Your task to perform on an android device: Search for flights from NYC to Tokyo Image 0: 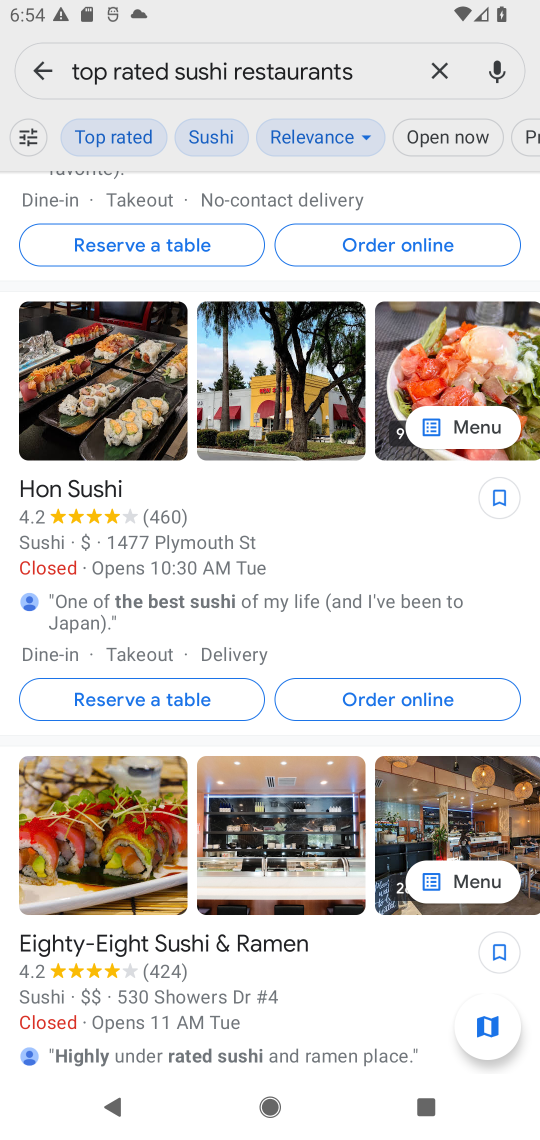
Step 0: press home button
Your task to perform on an android device: Search for flights from NYC to Tokyo Image 1: 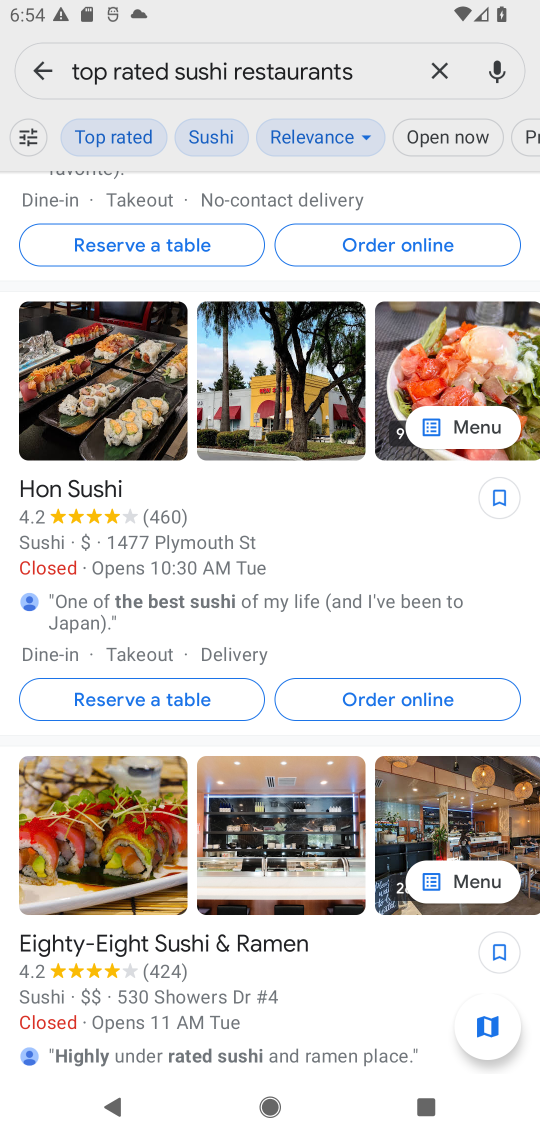
Step 1: press home button
Your task to perform on an android device: Search for flights from NYC to Tokyo Image 2: 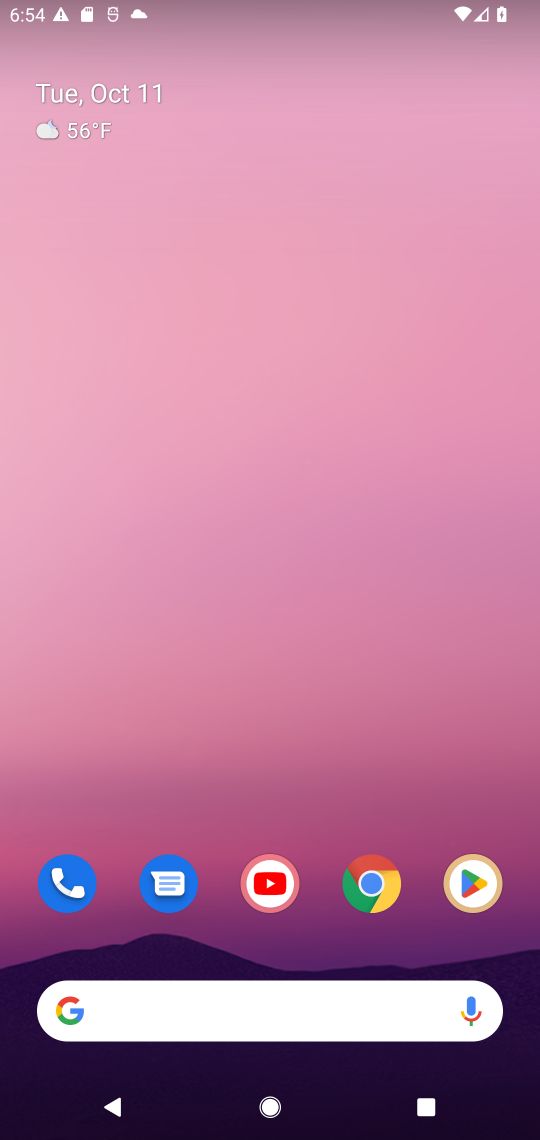
Step 2: drag from (318, 734) to (292, 103)
Your task to perform on an android device: Search for flights from NYC to Tokyo Image 3: 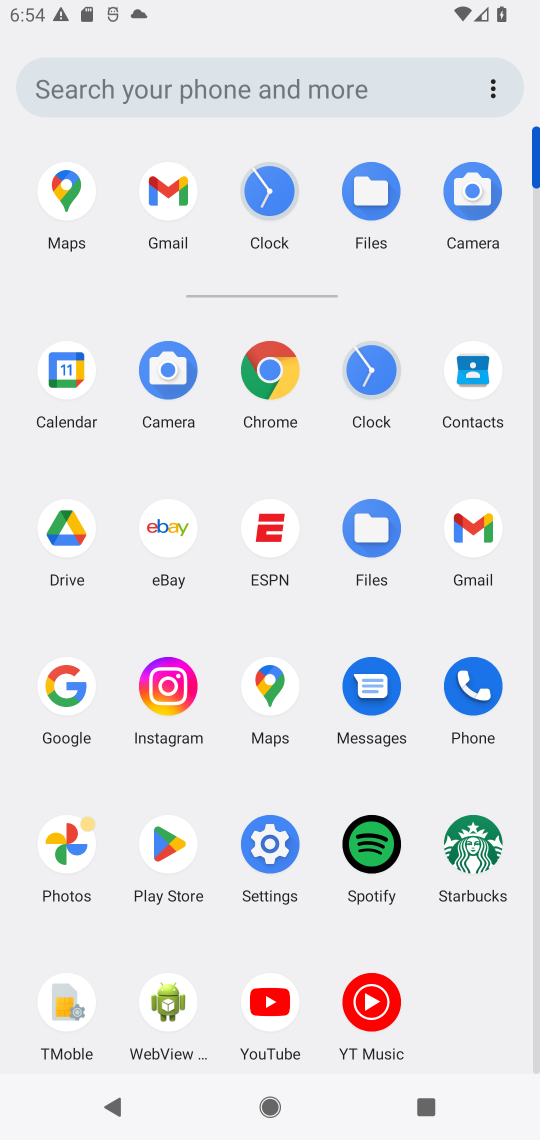
Step 3: click (279, 370)
Your task to perform on an android device: Search for flights from NYC to Tokyo Image 4: 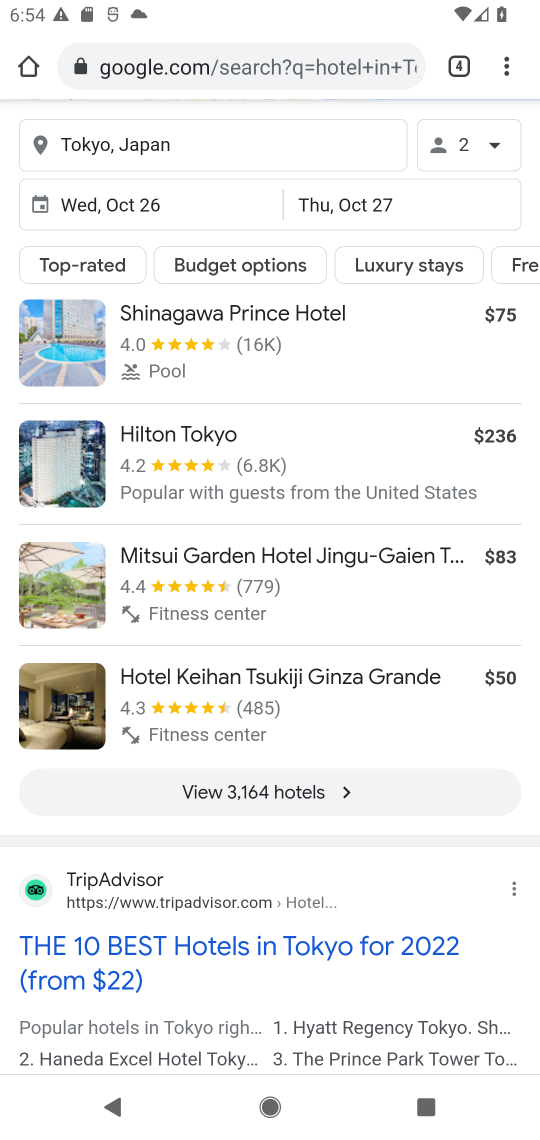
Step 4: click (212, 74)
Your task to perform on an android device: Search for flights from NYC to Tokyo Image 5: 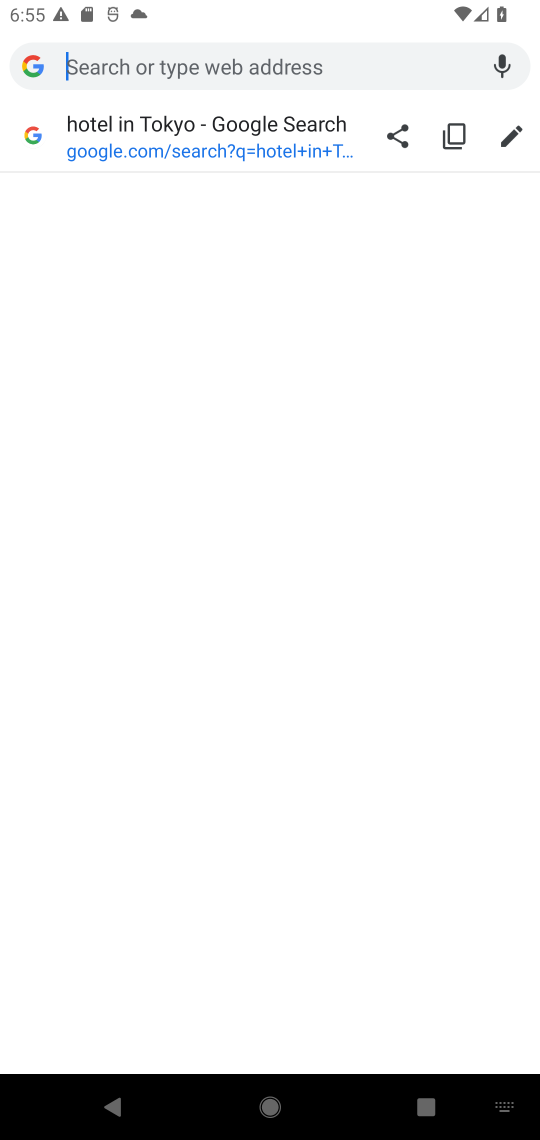
Step 5: type "flights from NYC to Tokyo"
Your task to perform on an android device: Search for flights from NYC to Tokyo Image 6: 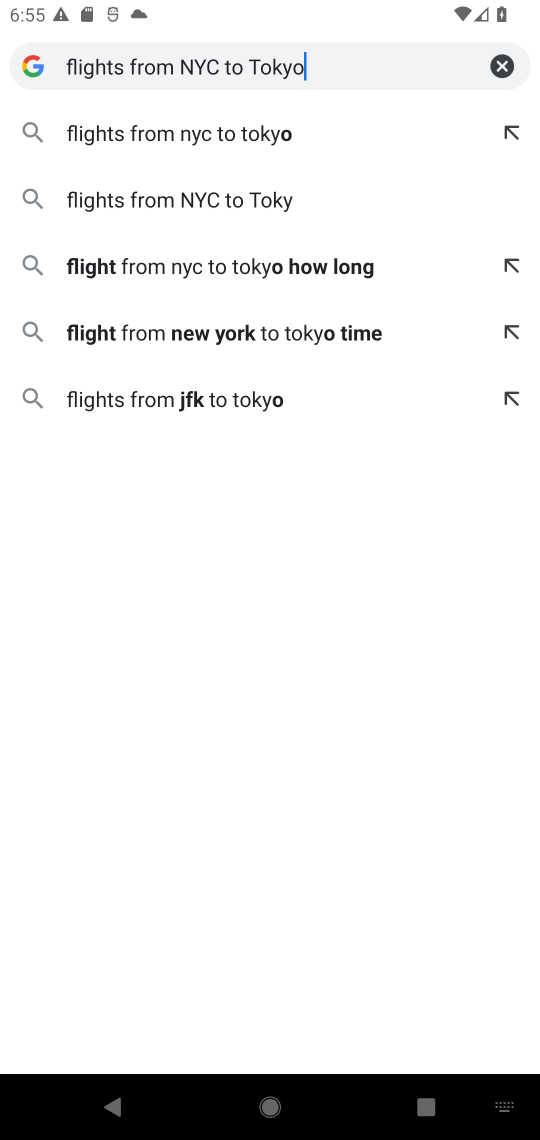
Step 6: press enter
Your task to perform on an android device: Search for flights from NYC to Tokyo Image 7: 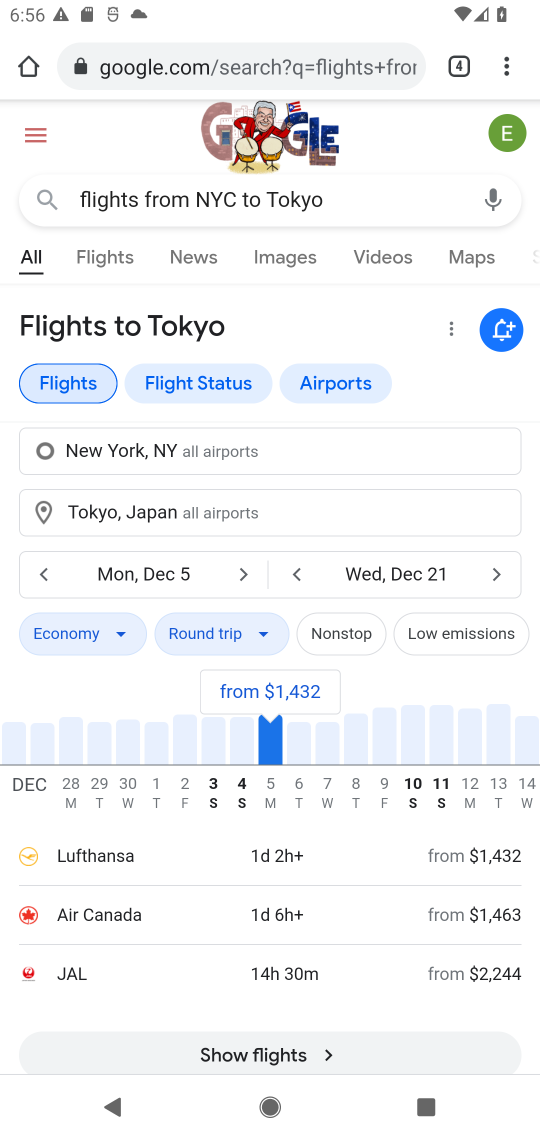
Step 7: task complete